Your task to perform on an android device: install app "Yahoo Mail" Image 0: 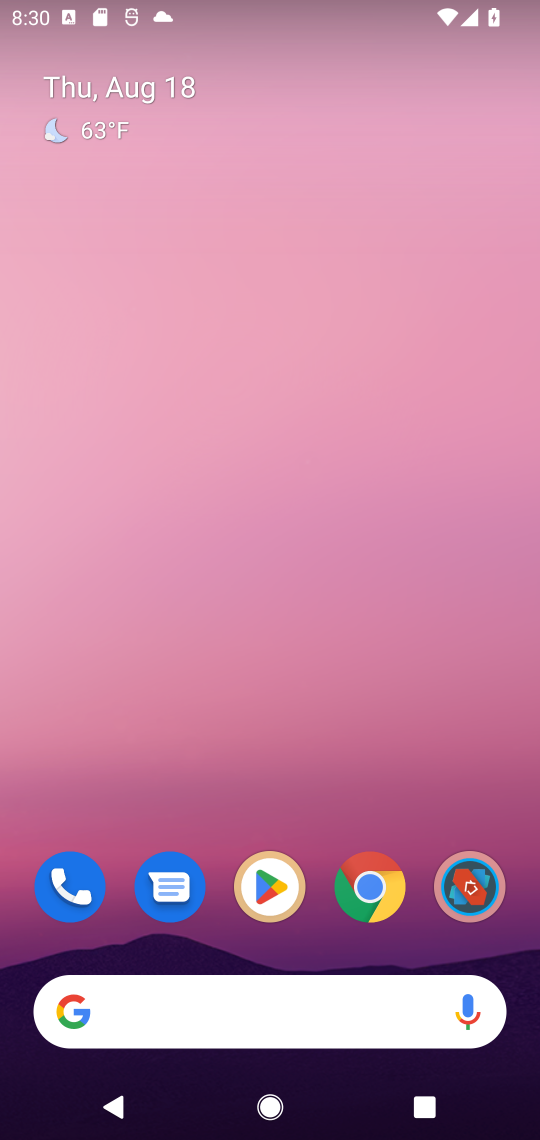
Step 0: click (279, 888)
Your task to perform on an android device: install app "Yahoo Mail" Image 1: 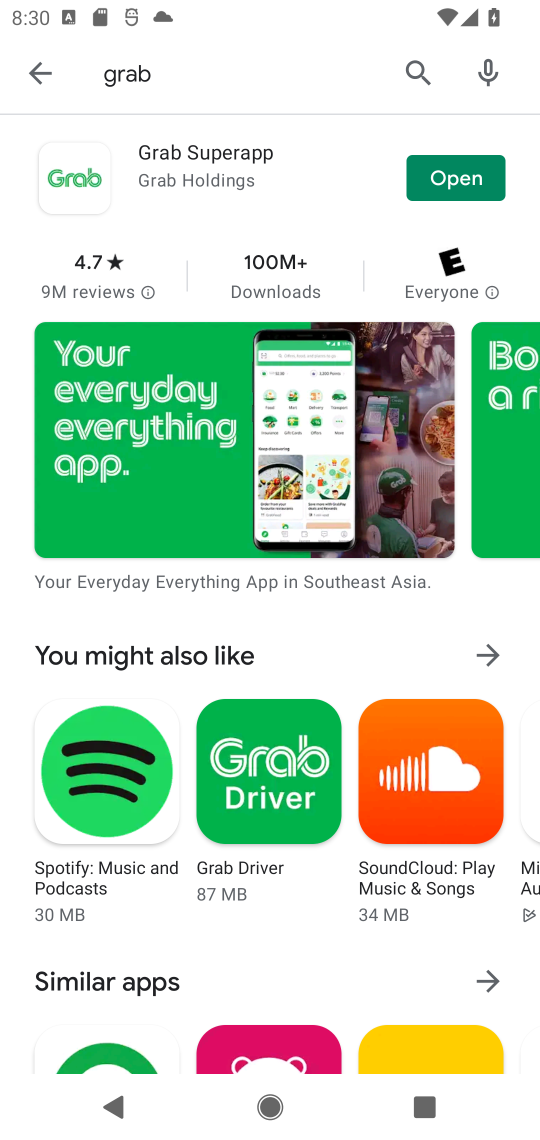
Step 1: click (417, 70)
Your task to perform on an android device: install app "Yahoo Mail" Image 2: 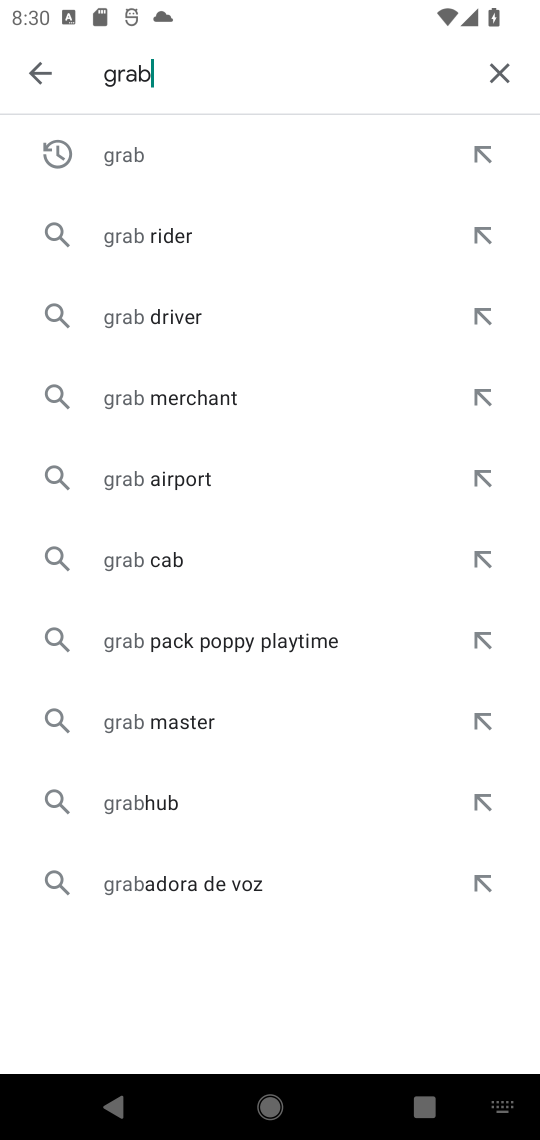
Step 2: click (495, 62)
Your task to perform on an android device: install app "Yahoo Mail" Image 3: 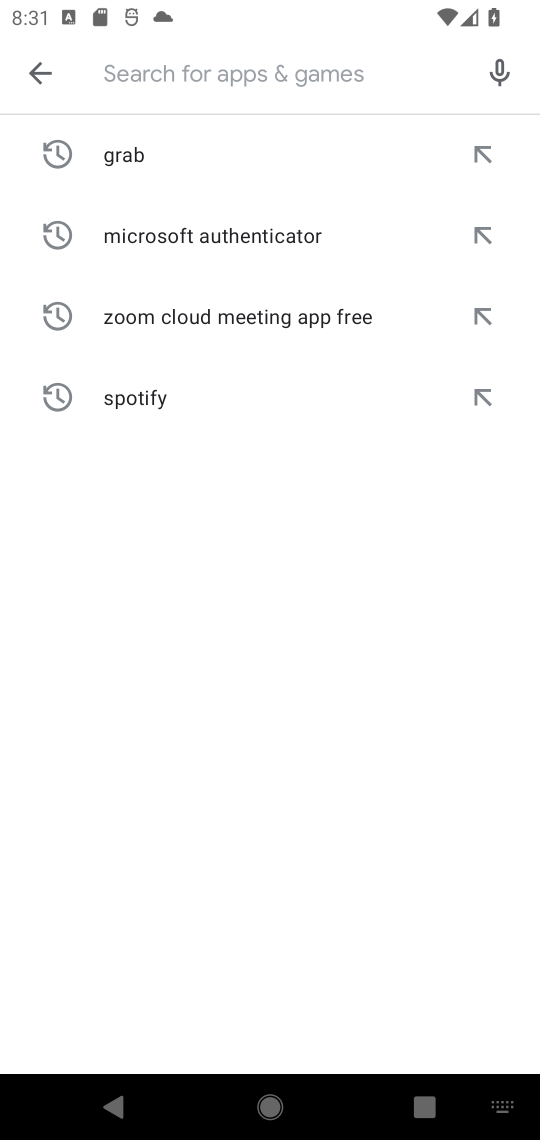
Step 3: type "Yahoo Mail"
Your task to perform on an android device: install app "Yahoo Mail" Image 4: 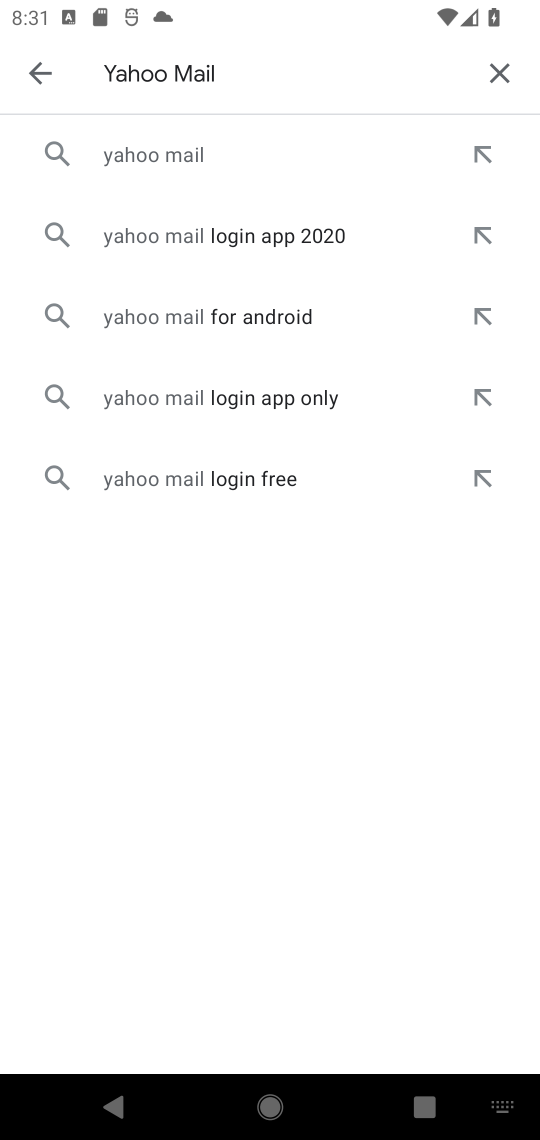
Step 4: click (175, 154)
Your task to perform on an android device: install app "Yahoo Mail" Image 5: 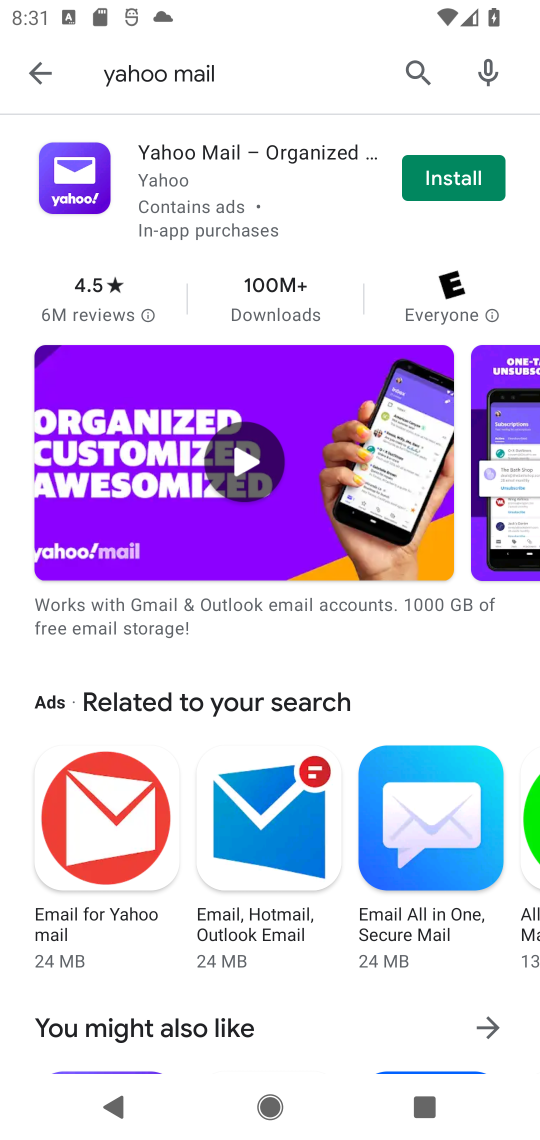
Step 5: click (476, 176)
Your task to perform on an android device: install app "Yahoo Mail" Image 6: 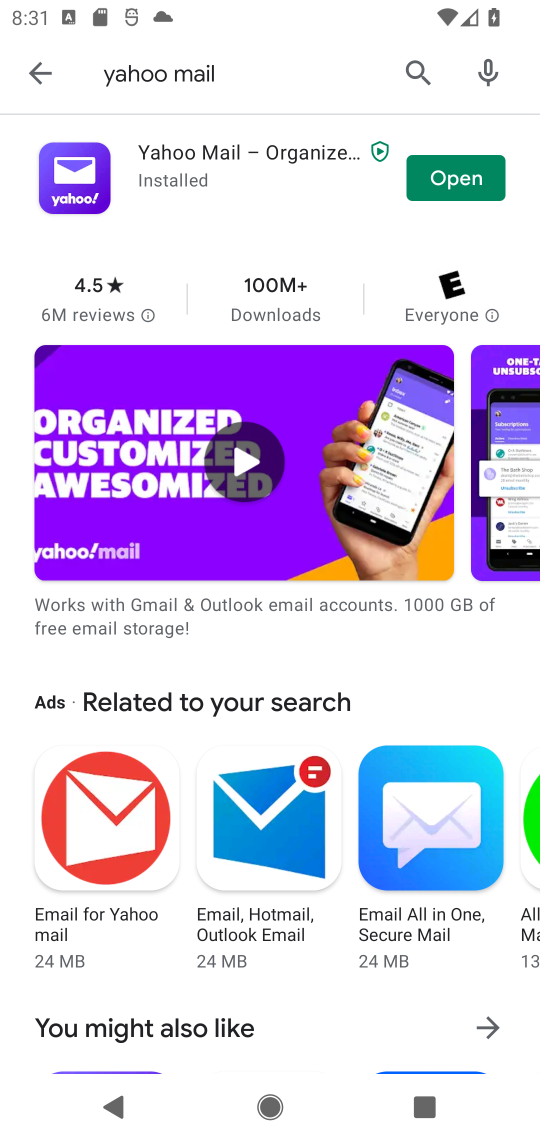
Step 6: task complete